Your task to perform on an android device: Open Amazon Image 0: 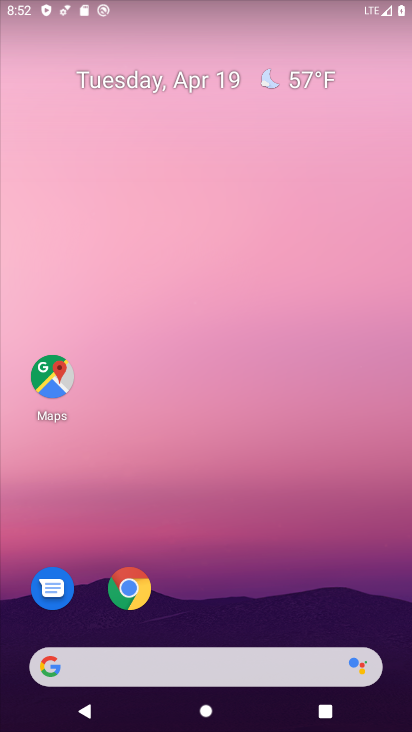
Step 0: click (144, 592)
Your task to perform on an android device: Open Amazon Image 1: 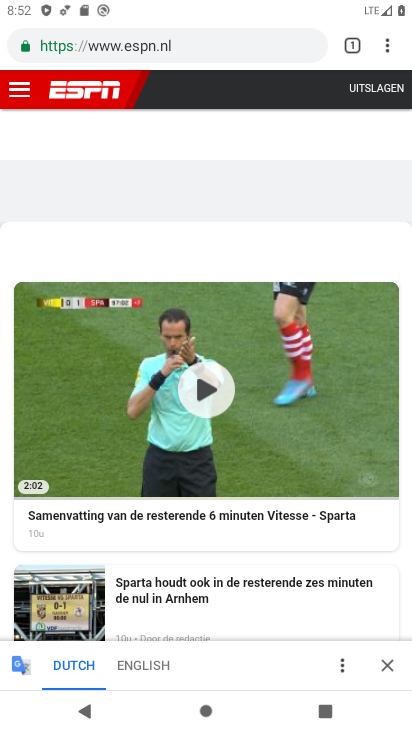
Step 1: click (184, 41)
Your task to perform on an android device: Open Amazon Image 2: 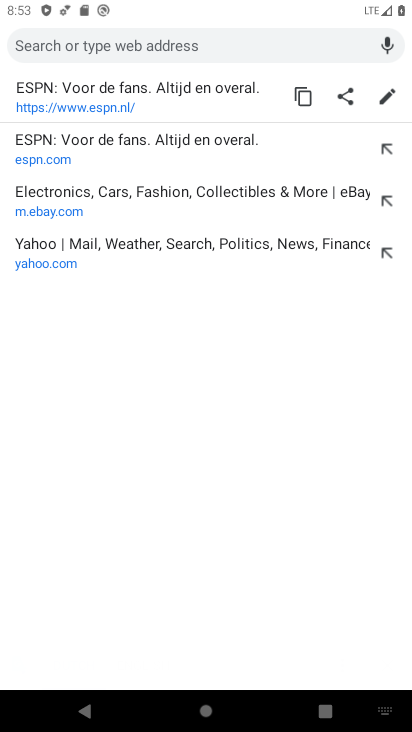
Step 2: type "amazon"
Your task to perform on an android device: Open Amazon Image 3: 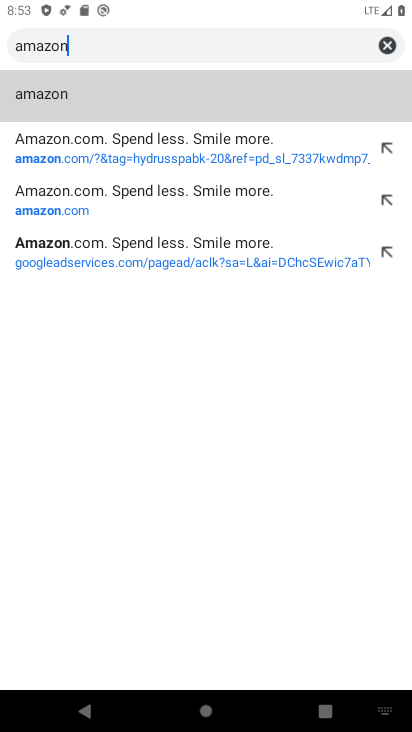
Step 3: click (35, 97)
Your task to perform on an android device: Open Amazon Image 4: 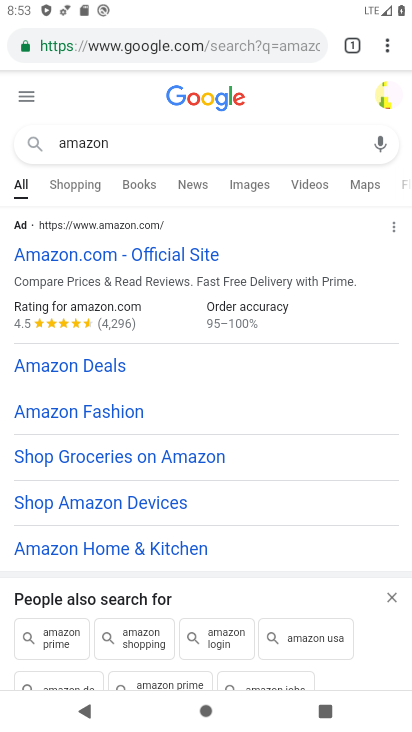
Step 4: click (66, 258)
Your task to perform on an android device: Open Amazon Image 5: 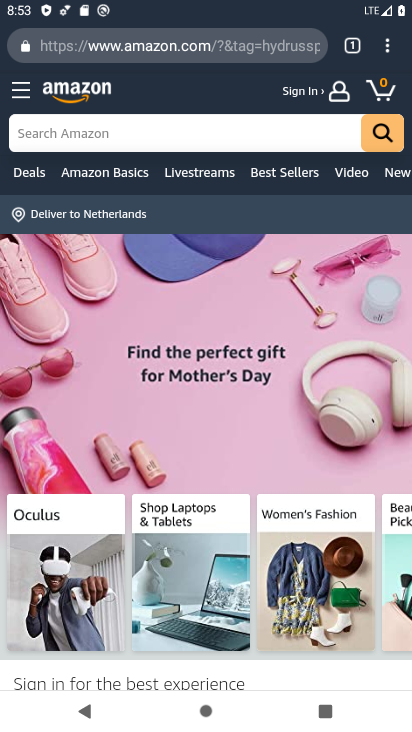
Step 5: task complete